Your task to perform on an android device: toggle notifications settings in the gmail app Image 0: 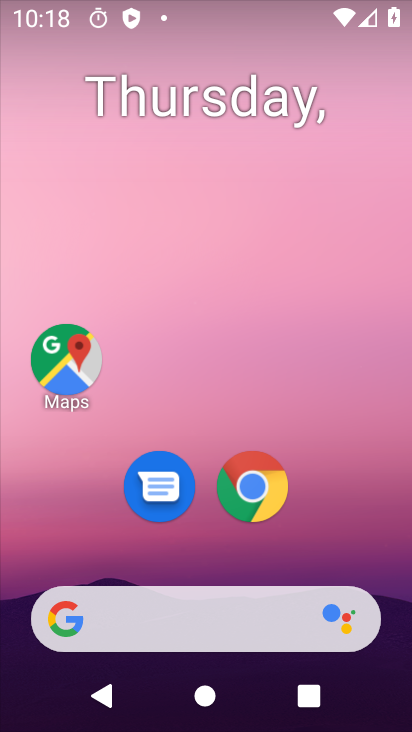
Step 0: drag from (190, 540) to (276, 118)
Your task to perform on an android device: toggle notifications settings in the gmail app Image 1: 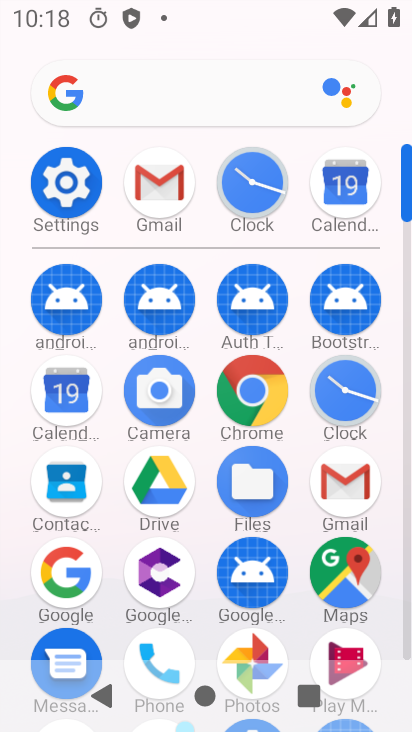
Step 1: click (172, 183)
Your task to perform on an android device: toggle notifications settings in the gmail app Image 2: 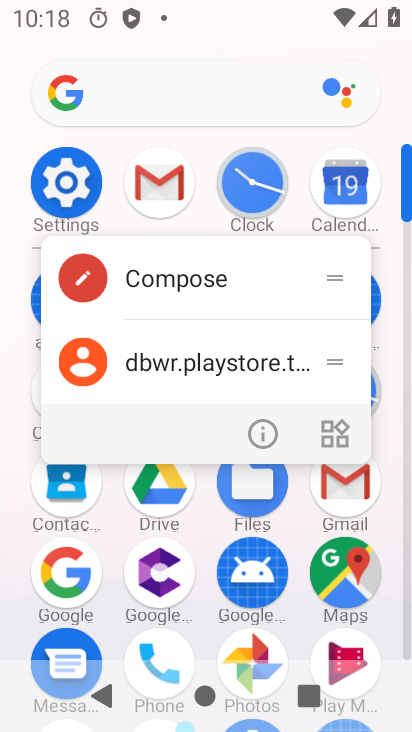
Step 2: click (262, 437)
Your task to perform on an android device: toggle notifications settings in the gmail app Image 3: 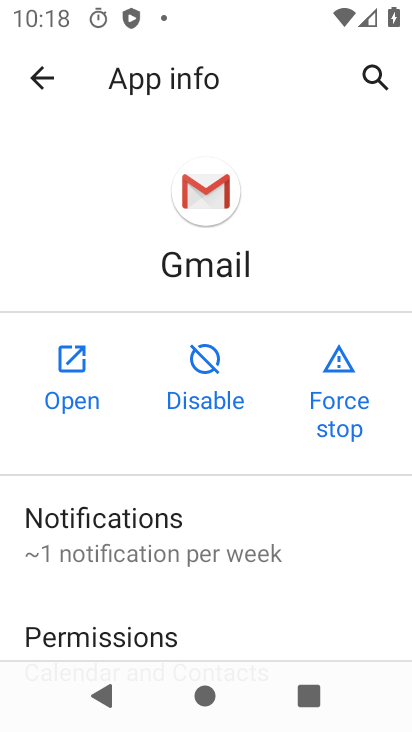
Step 3: click (145, 526)
Your task to perform on an android device: toggle notifications settings in the gmail app Image 4: 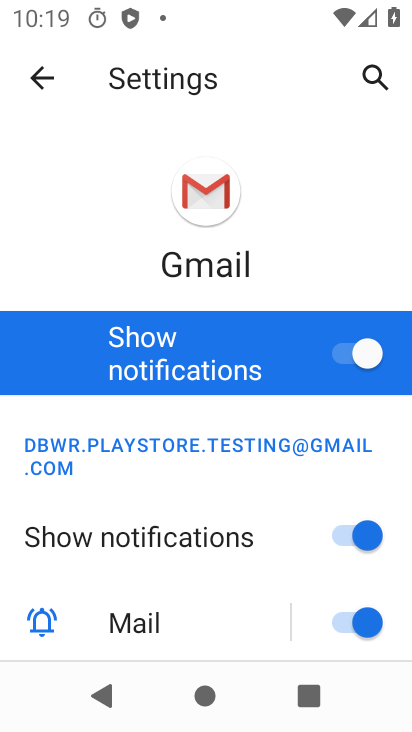
Step 4: task complete